Your task to perform on an android device: Open Reddit.com Image 0: 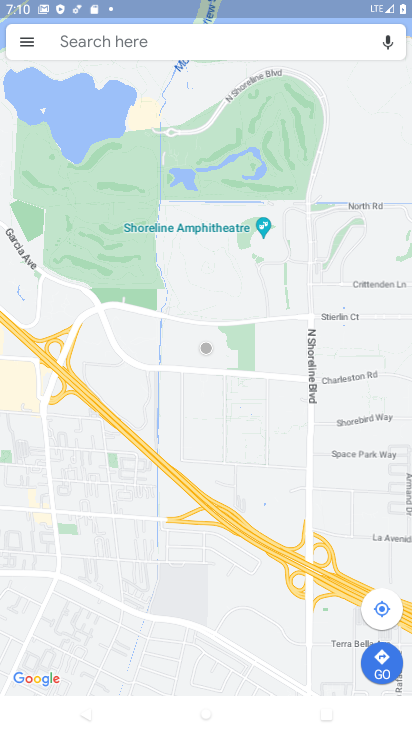
Step 0: press home button
Your task to perform on an android device: Open Reddit.com Image 1: 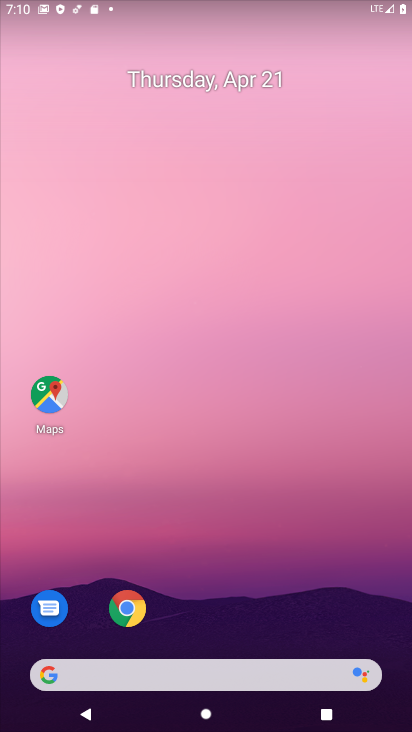
Step 1: click (137, 617)
Your task to perform on an android device: Open Reddit.com Image 2: 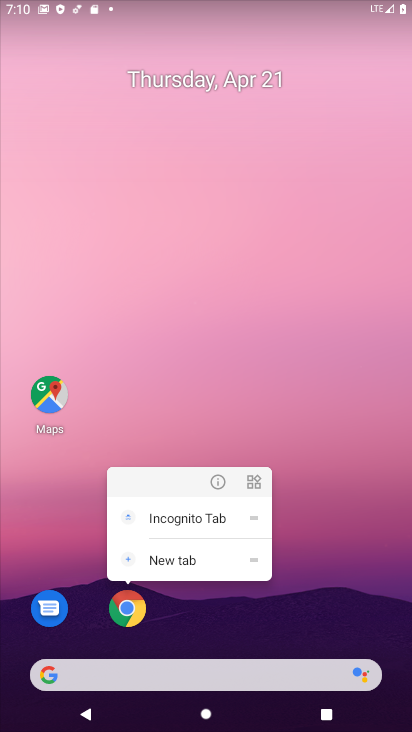
Step 2: click (123, 610)
Your task to perform on an android device: Open Reddit.com Image 3: 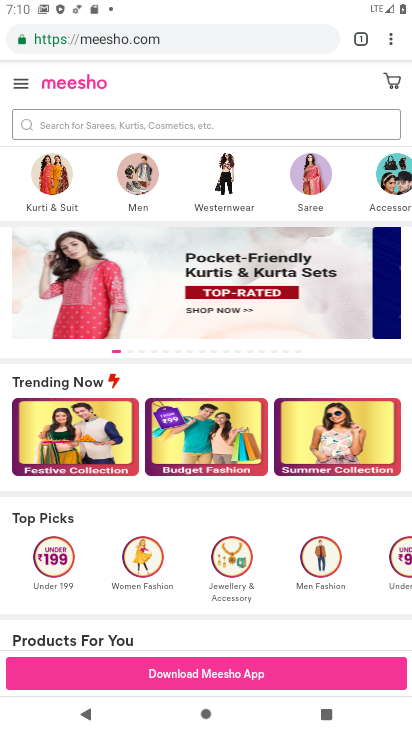
Step 3: click (201, 32)
Your task to perform on an android device: Open Reddit.com Image 4: 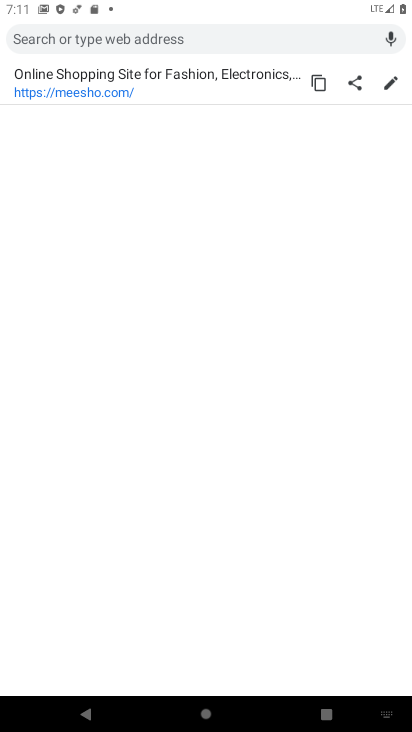
Step 4: type "reddit.com"
Your task to perform on an android device: Open Reddit.com Image 5: 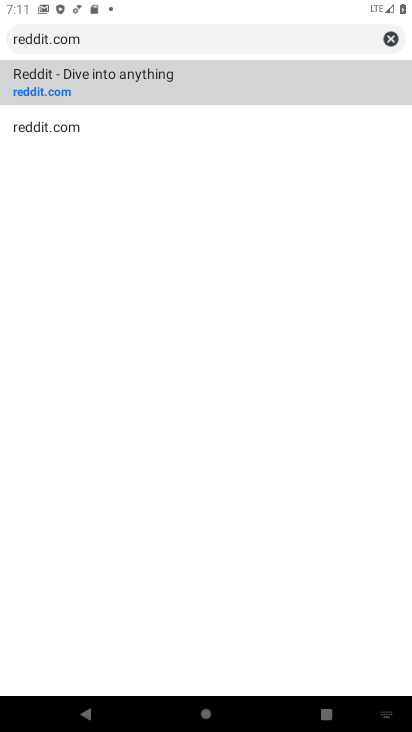
Step 5: click (45, 90)
Your task to perform on an android device: Open Reddit.com Image 6: 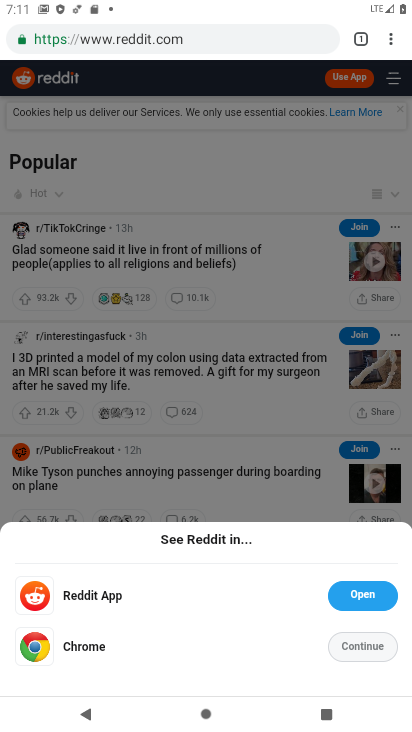
Step 6: click (116, 651)
Your task to perform on an android device: Open Reddit.com Image 7: 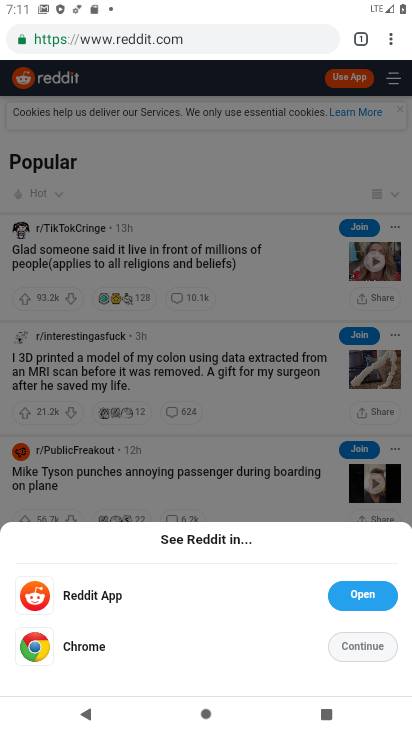
Step 7: click (368, 653)
Your task to perform on an android device: Open Reddit.com Image 8: 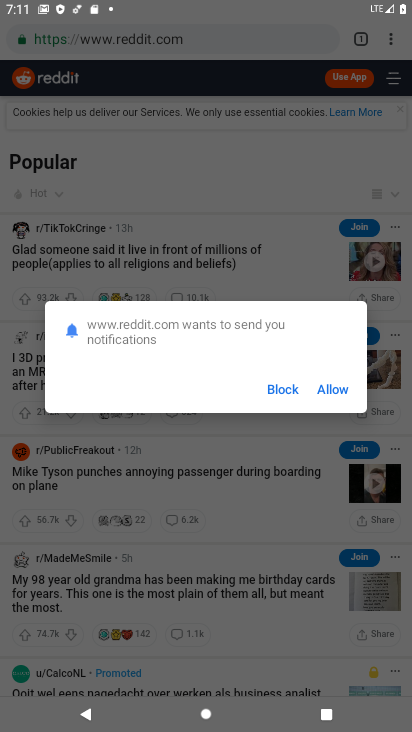
Step 8: task complete